Your task to perform on an android device: remove spam from my inbox in the gmail app Image 0: 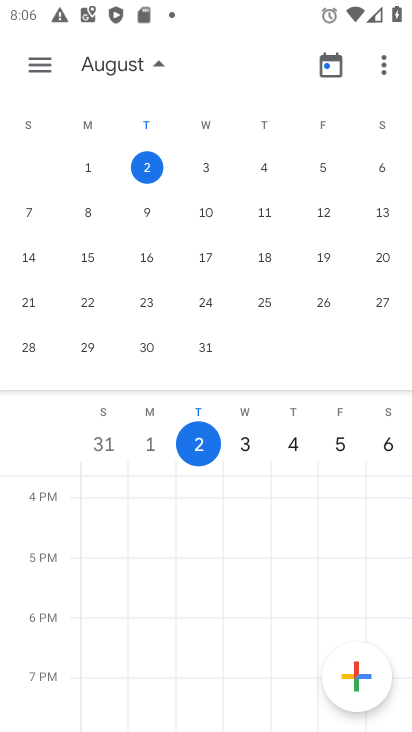
Step 0: press home button
Your task to perform on an android device: remove spam from my inbox in the gmail app Image 1: 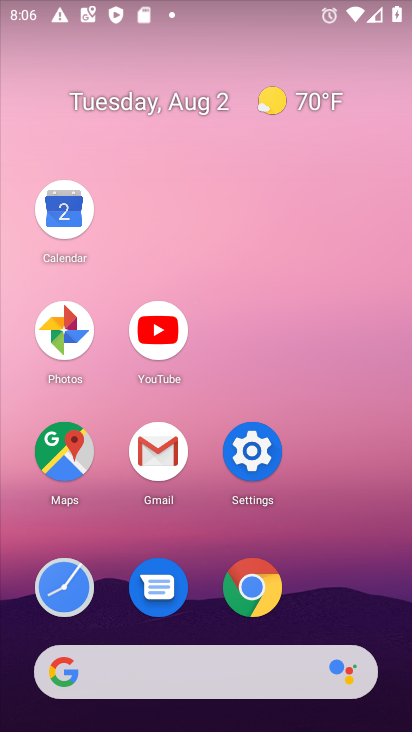
Step 1: click (152, 454)
Your task to perform on an android device: remove spam from my inbox in the gmail app Image 2: 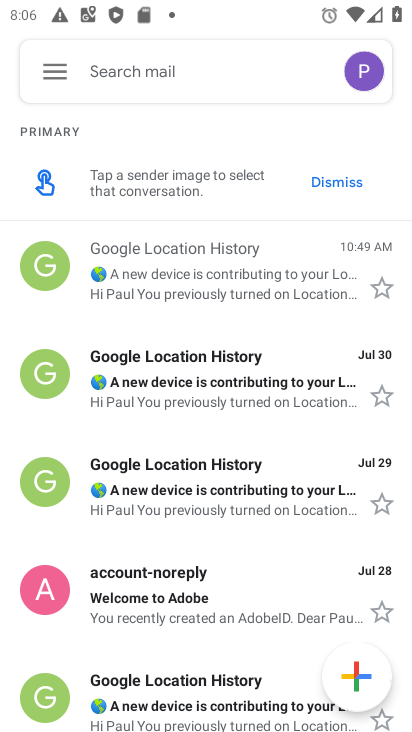
Step 2: click (52, 69)
Your task to perform on an android device: remove spam from my inbox in the gmail app Image 3: 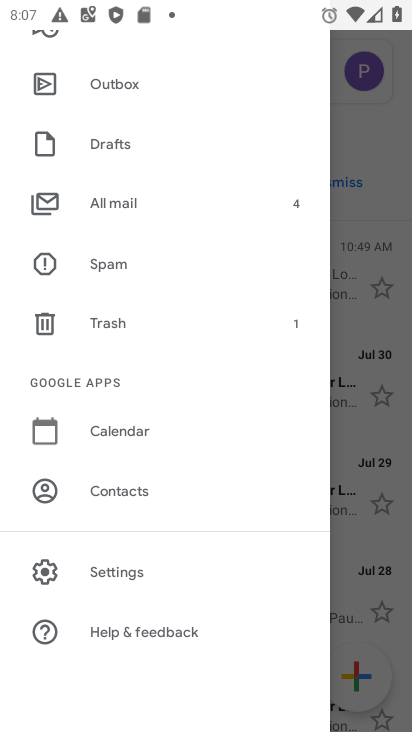
Step 3: drag from (188, 147) to (187, 188)
Your task to perform on an android device: remove spam from my inbox in the gmail app Image 4: 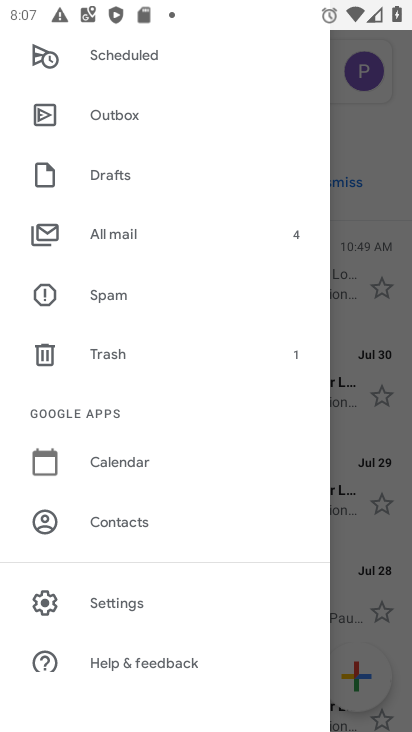
Step 4: click (111, 290)
Your task to perform on an android device: remove spam from my inbox in the gmail app Image 5: 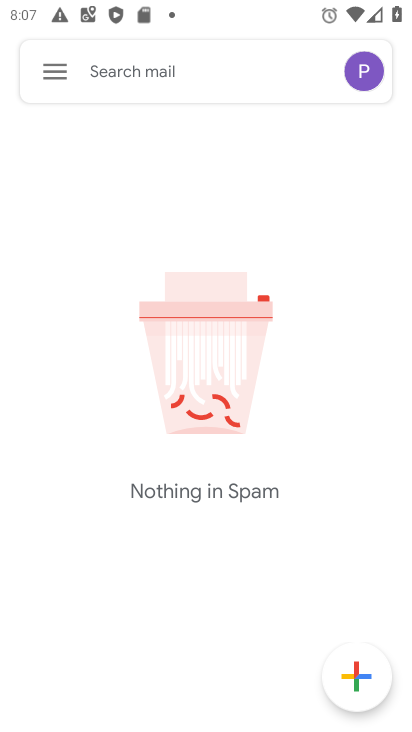
Step 5: click (51, 69)
Your task to perform on an android device: remove spam from my inbox in the gmail app Image 6: 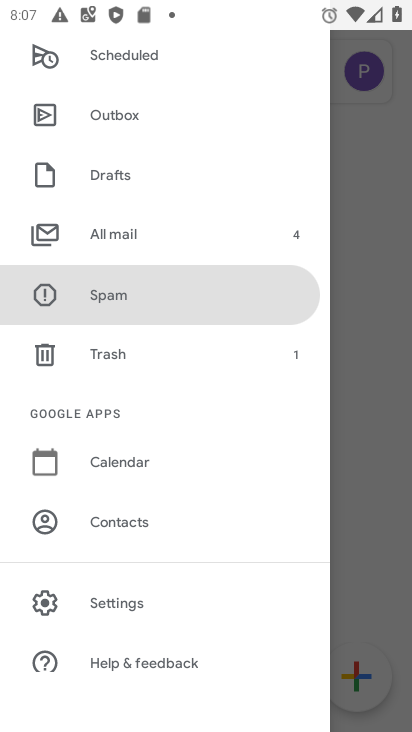
Step 6: click (350, 257)
Your task to perform on an android device: remove spam from my inbox in the gmail app Image 7: 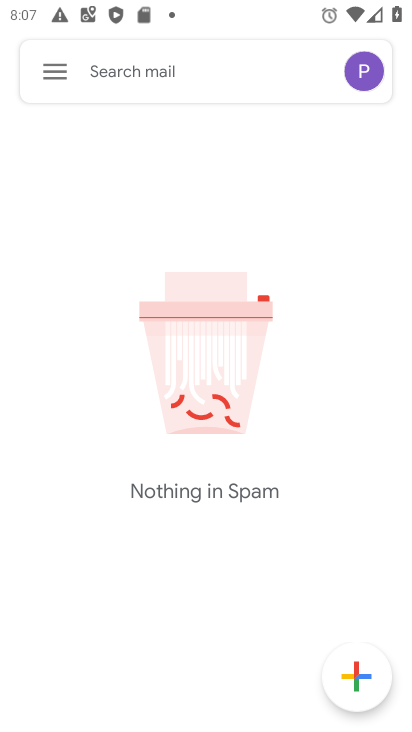
Step 7: task complete